Your task to perform on an android device: Is it going to rain this weekend? Image 0: 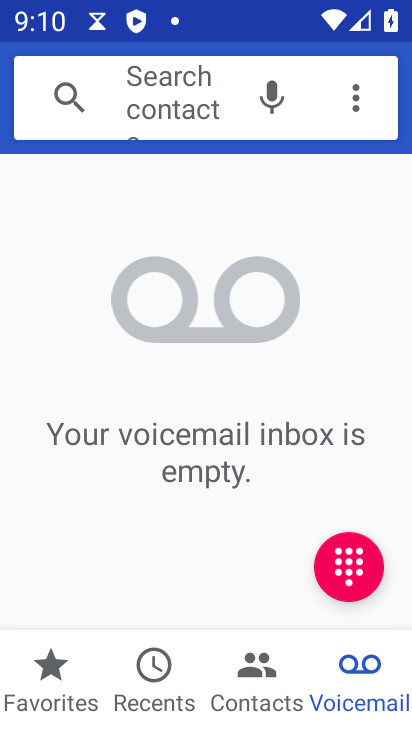
Step 0: press back button
Your task to perform on an android device: Is it going to rain this weekend? Image 1: 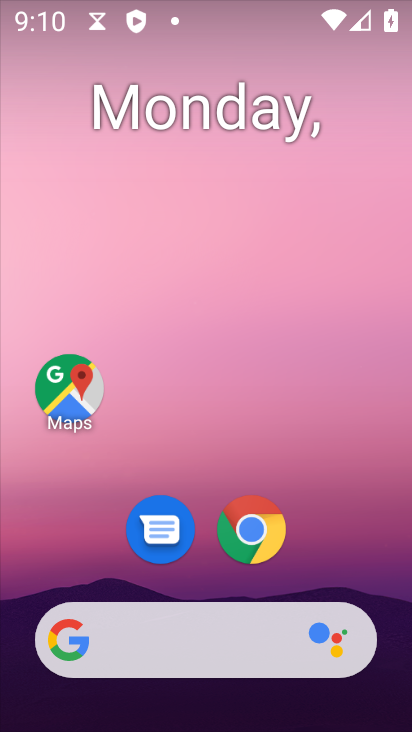
Step 1: drag from (260, 705) to (179, 43)
Your task to perform on an android device: Is it going to rain this weekend? Image 2: 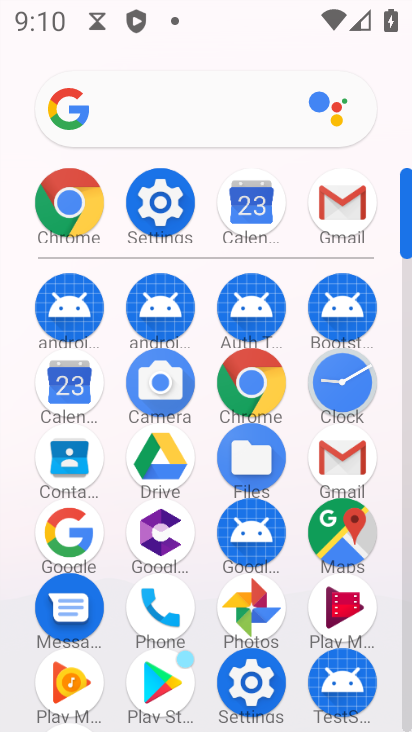
Step 2: click (155, 199)
Your task to perform on an android device: Is it going to rain this weekend? Image 3: 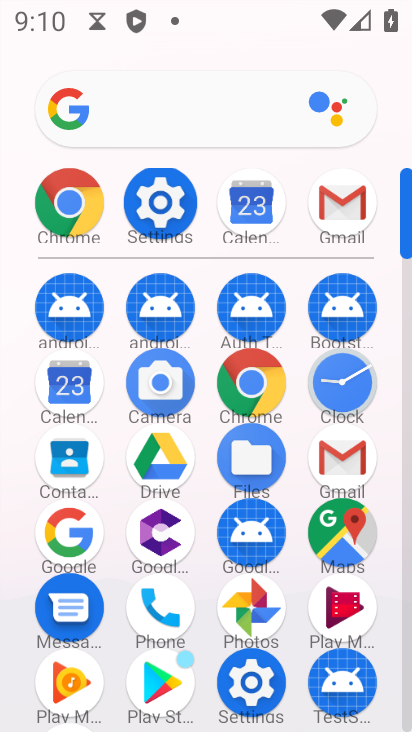
Step 3: click (167, 196)
Your task to perform on an android device: Is it going to rain this weekend? Image 4: 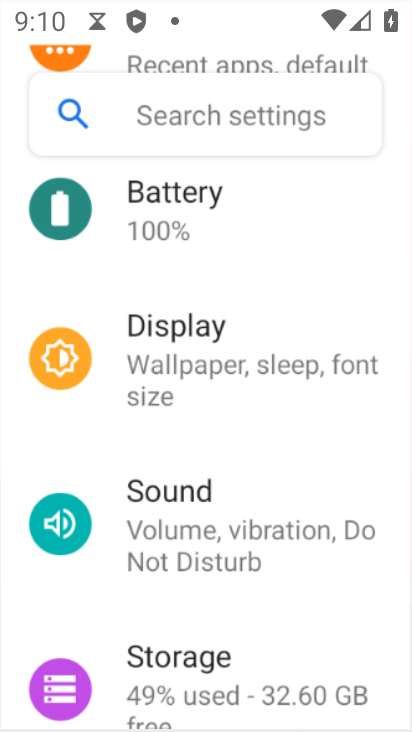
Step 4: click (167, 196)
Your task to perform on an android device: Is it going to rain this weekend? Image 5: 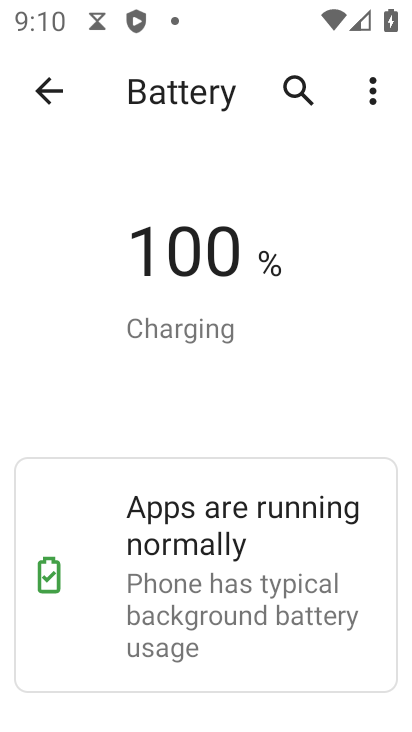
Step 5: click (54, 107)
Your task to perform on an android device: Is it going to rain this weekend? Image 6: 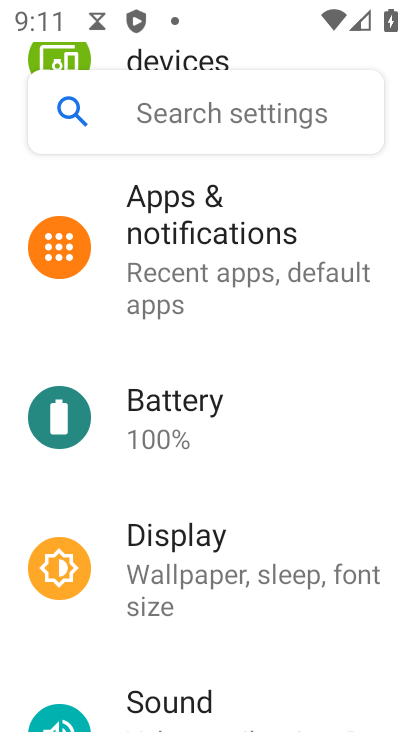
Step 6: press back button
Your task to perform on an android device: Is it going to rain this weekend? Image 7: 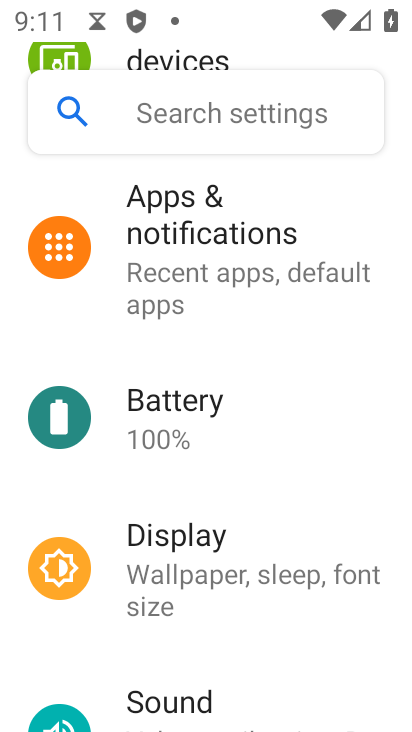
Step 7: press back button
Your task to perform on an android device: Is it going to rain this weekend? Image 8: 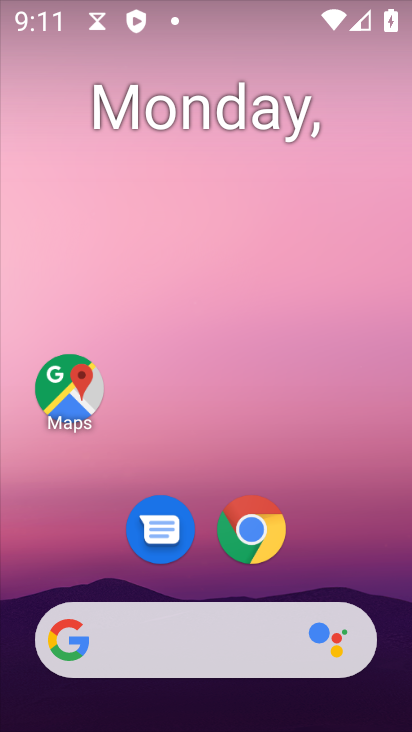
Step 8: drag from (5, 210) to (411, 276)
Your task to perform on an android device: Is it going to rain this weekend? Image 9: 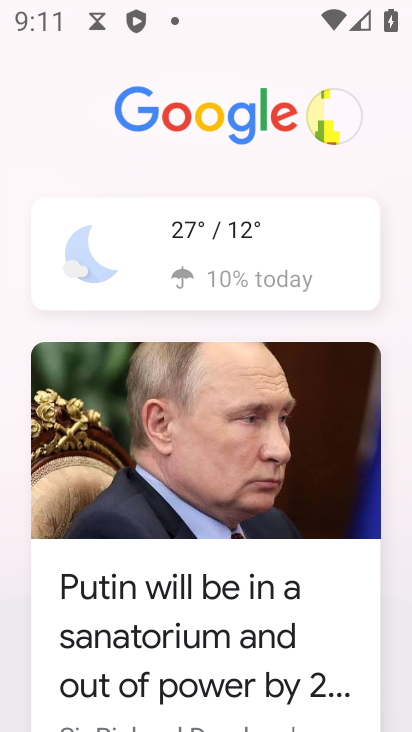
Step 9: click (189, 236)
Your task to perform on an android device: Is it going to rain this weekend? Image 10: 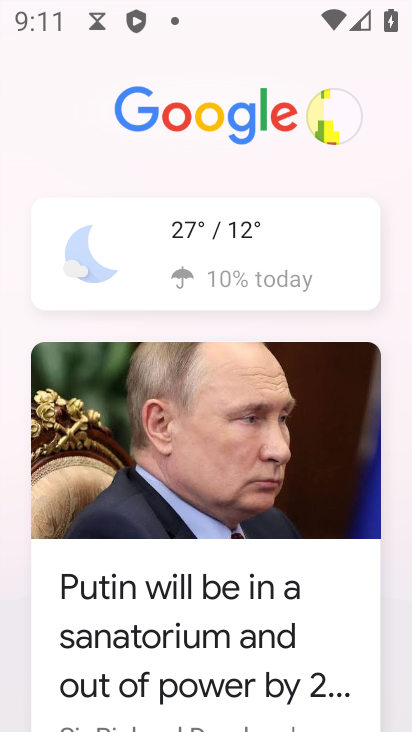
Step 10: click (189, 236)
Your task to perform on an android device: Is it going to rain this weekend? Image 11: 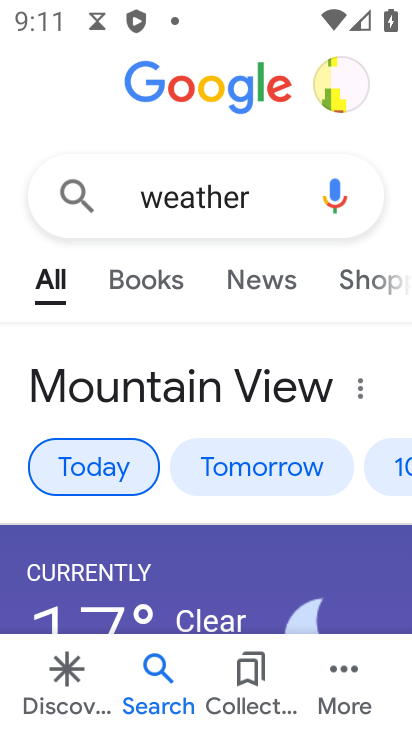
Step 11: click (206, 206)
Your task to perform on an android device: Is it going to rain this weekend? Image 12: 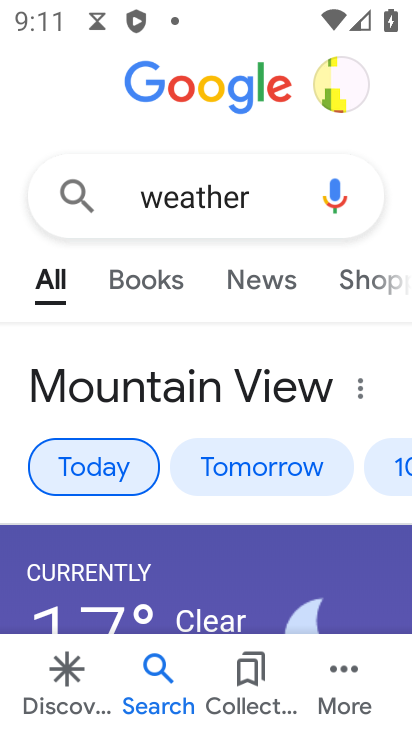
Step 12: click (209, 200)
Your task to perform on an android device: Is it going to rain this weekend? Image 13: 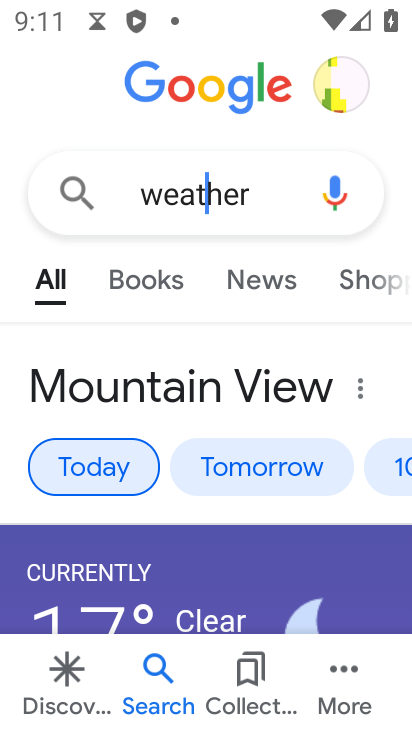
Step 13: click (215, 197)
Your task to perform on an android device: Is it going to rain this weekend? Image 14: 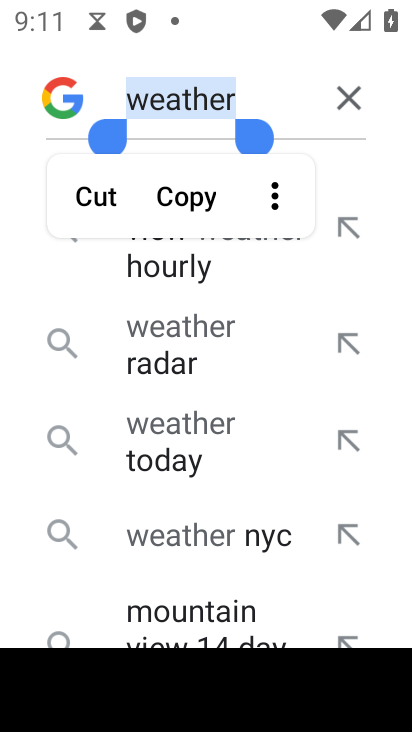
Step 14: press back button
Your task to perform on an android device: Is it going to rain this weekend? Image 15: 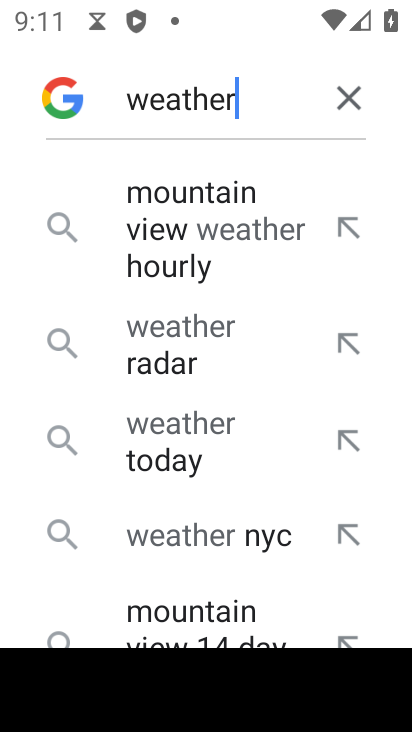
Step 15: click (238, 102)
Your task to perform on an android device: Is it going to rain this weekend? Image 16: 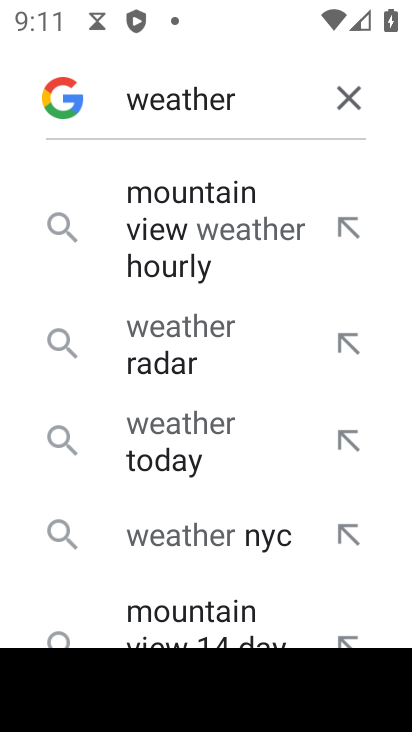
Step 16: task complete